Your task to perform on an android device: Go to location settings Image 0: 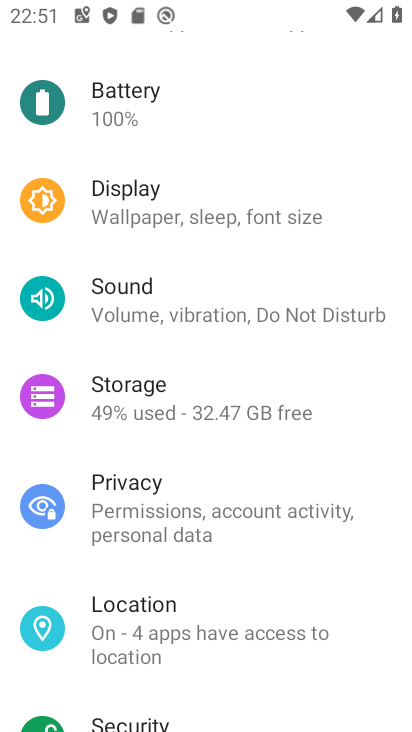
Step 0: click (208, 624)
Your task to perform on an android device: Go to location settings Image 1: 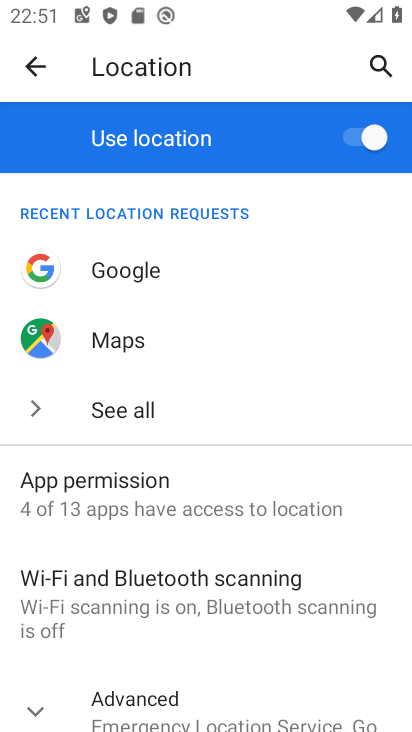
Step 1: task complete